Your task to perform on an android device: toggle sleep mode Image 0: 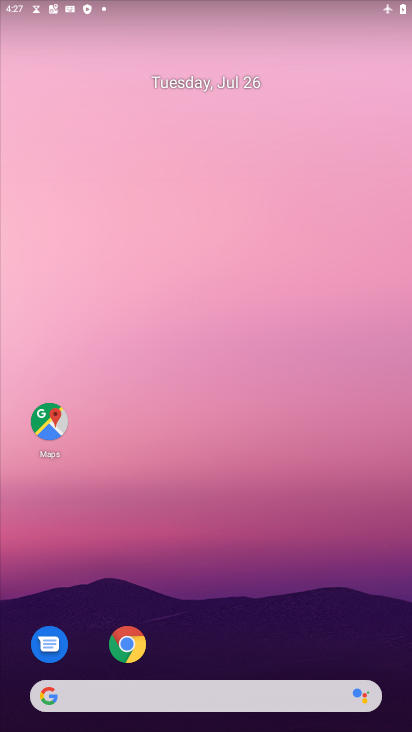
Step 0: drag from (263, 651) to (207, 180)
Your task to perform on an android device: toggle sleep mode Image 1: 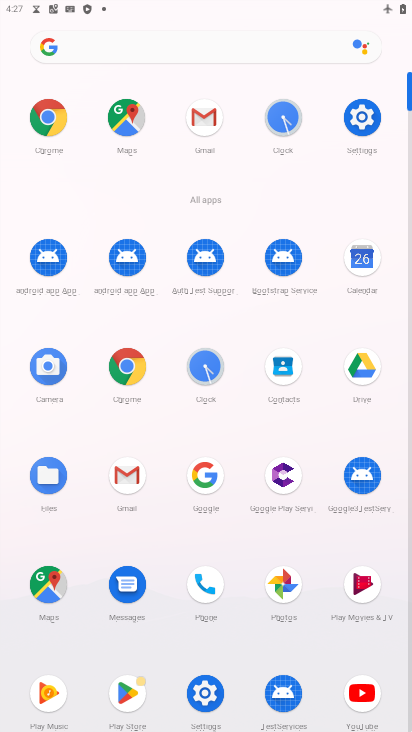
Step 1: click (378, 134)
Your task to perform on an android device: toggle sleep mode Image 2: 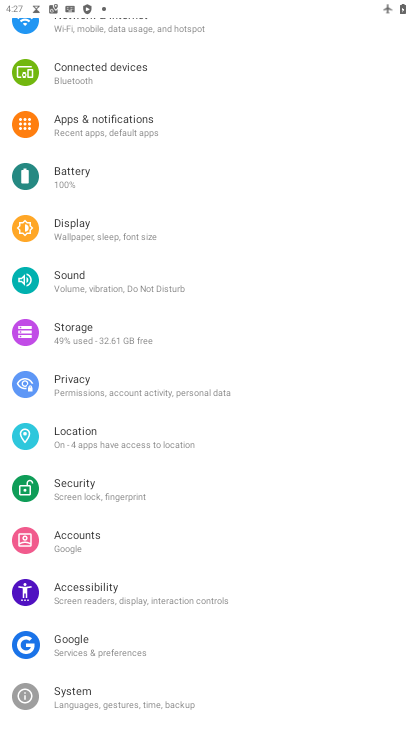
Step 2: click (124, 238)
Your task to perform on an android device: toggle sleep mode Image 3: 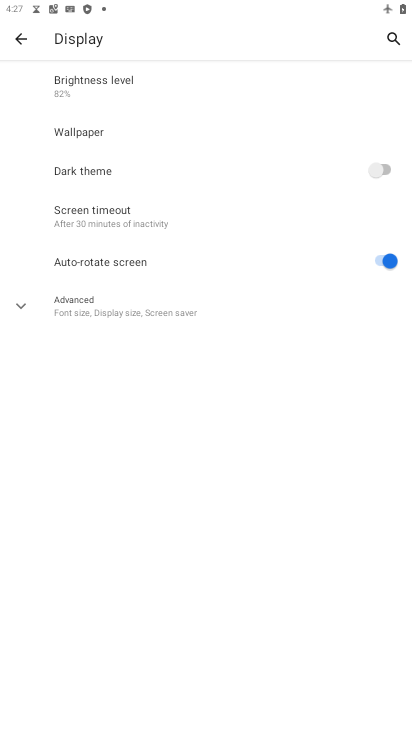
Step 3: click (251, 300)
Your task to perform on an android device: toggle sleep mode Image 4: 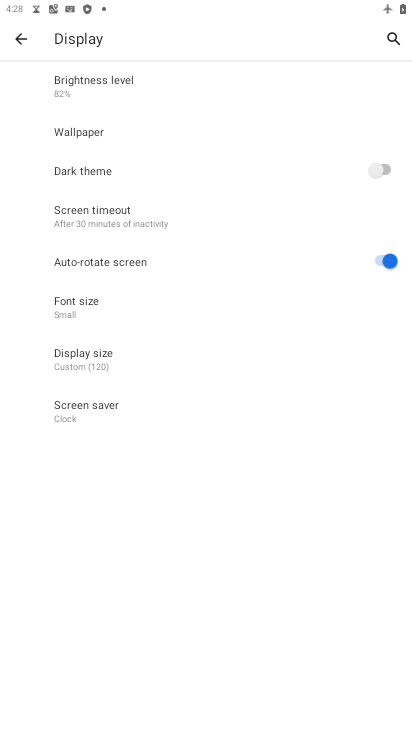
Step 4: task complete